Your task to perform on an android device: Search for cool wooden wall art on Etsy. Image 0: 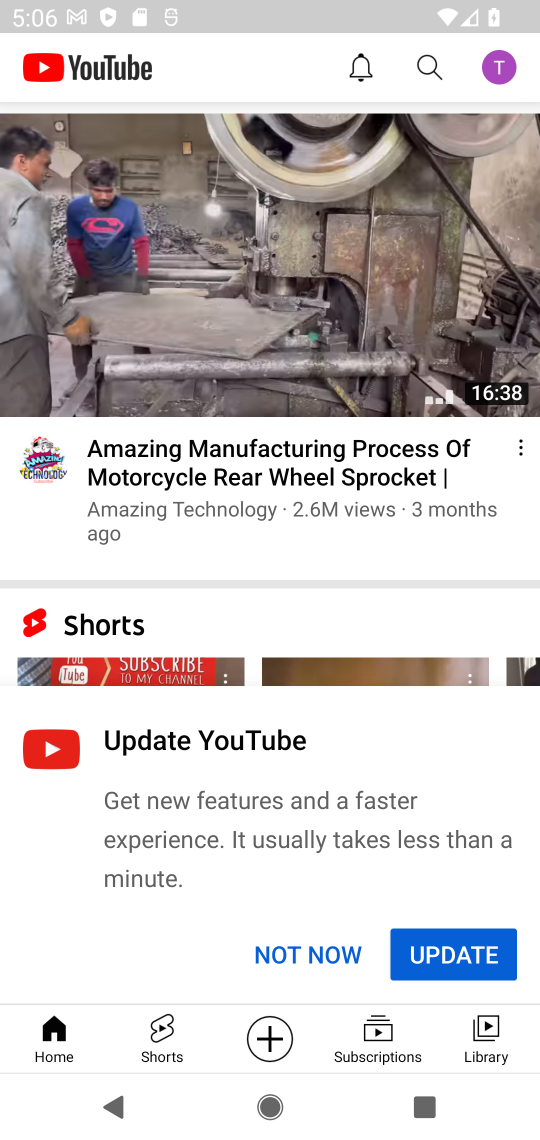
Step 0: press home button
Your task to perform on an android device: Search for cool wooden wall art on Etsy. Image 1: 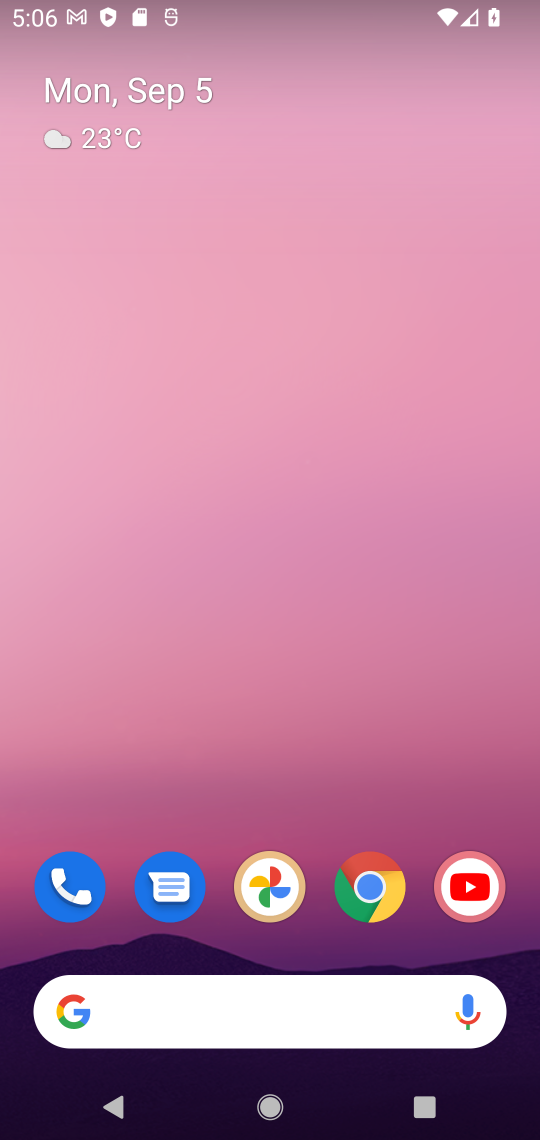
Step 1: drag from (333, 977) to (353, 392)
Your task to perform on an android device: Search for cool wooden wall art on Etsy. Image 2: 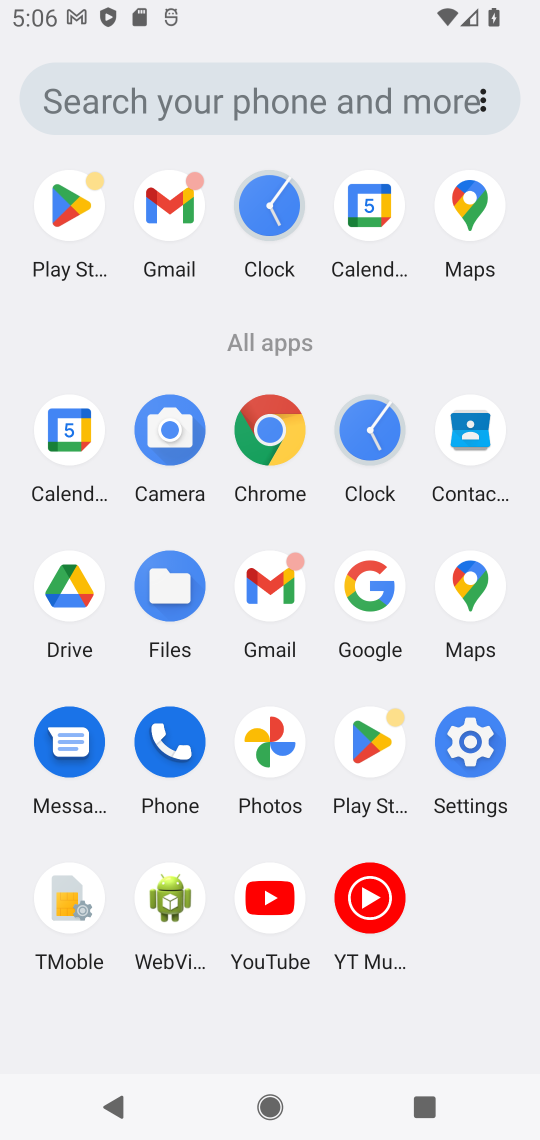
Step 2: click (388, 592)
Your task to perform on an android device: Search for cool wooden wall art on Etsy. Image 3: 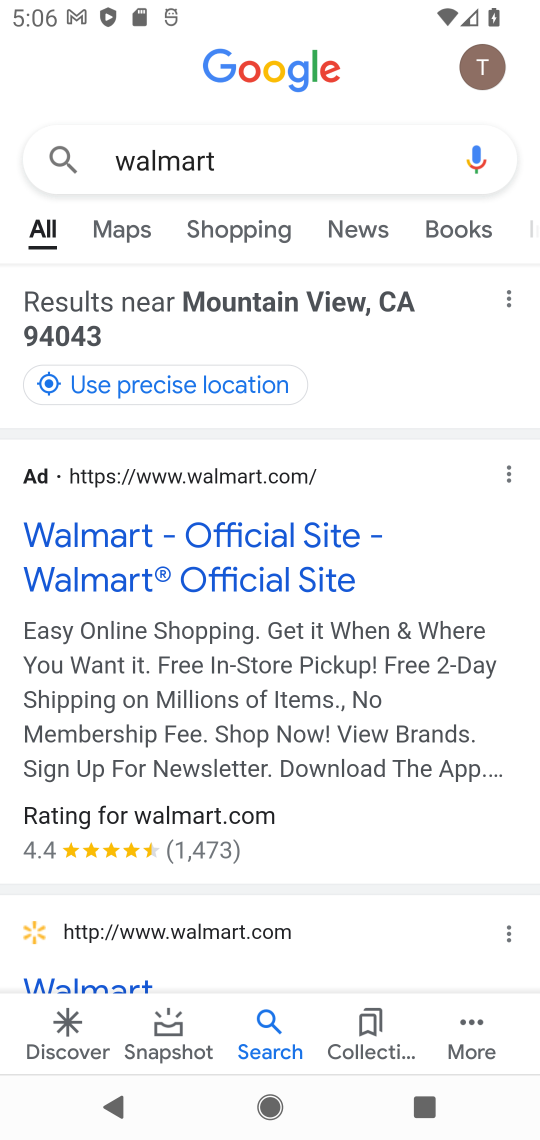
Step 3: click (181, 164)
Your task to perform on an android device: Search for cool wooden wall art on Etsy. Image 4: 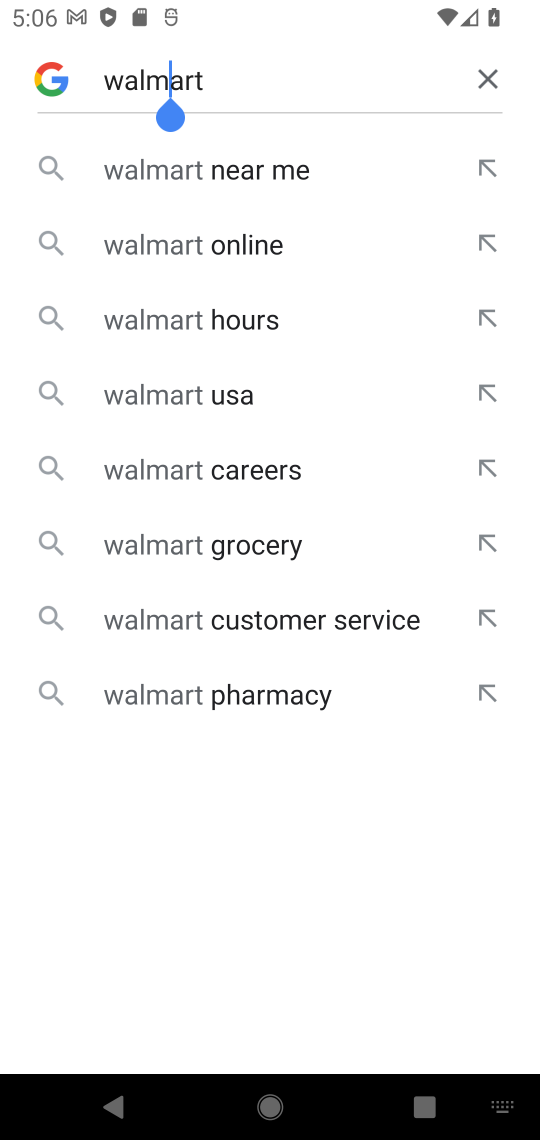
Step 4: click (487, 87)
Your task to perform on an android device: Search for cool wooden wall art on Etsy. Image 5: 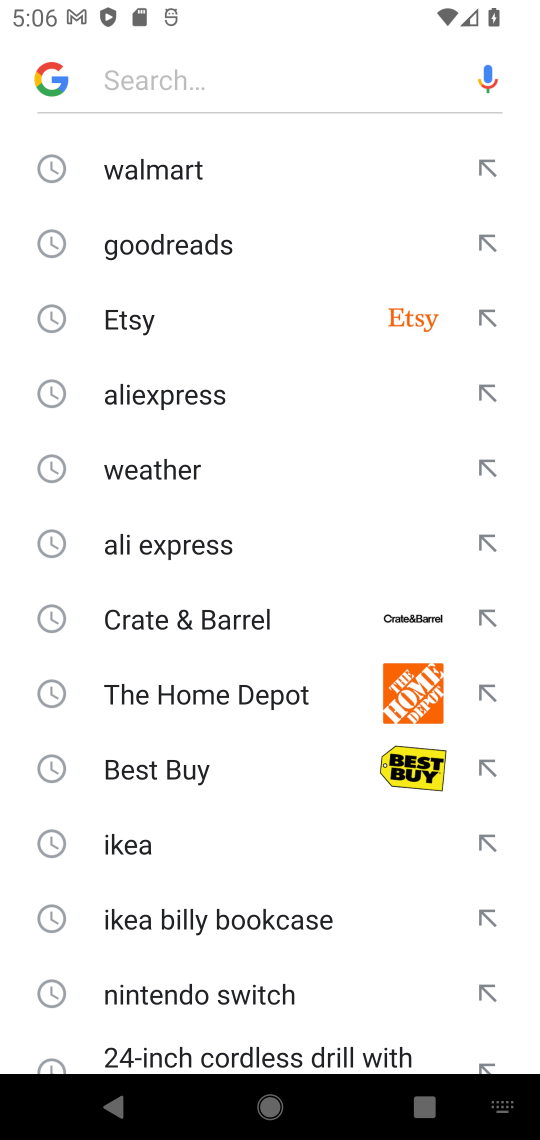
Step 5: click (115, 321)
Your task to perform on an android device: Search for cool wooden wall art on Etsy. Image 6: 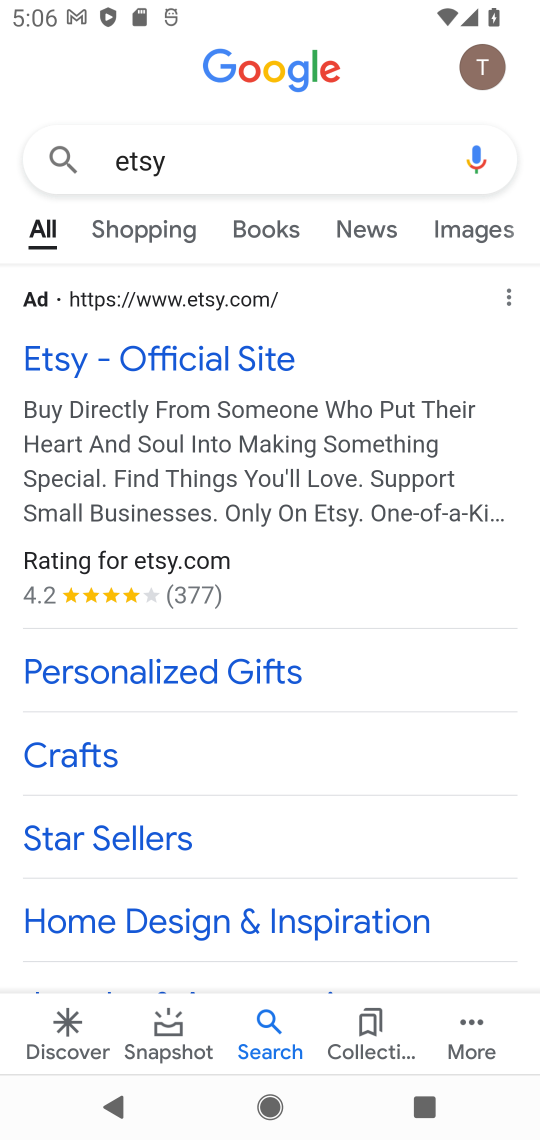
Step 6: click (166, 351)
Your task to perform on an android device: Search for cool wooden wall art on Etsy. Image 7: 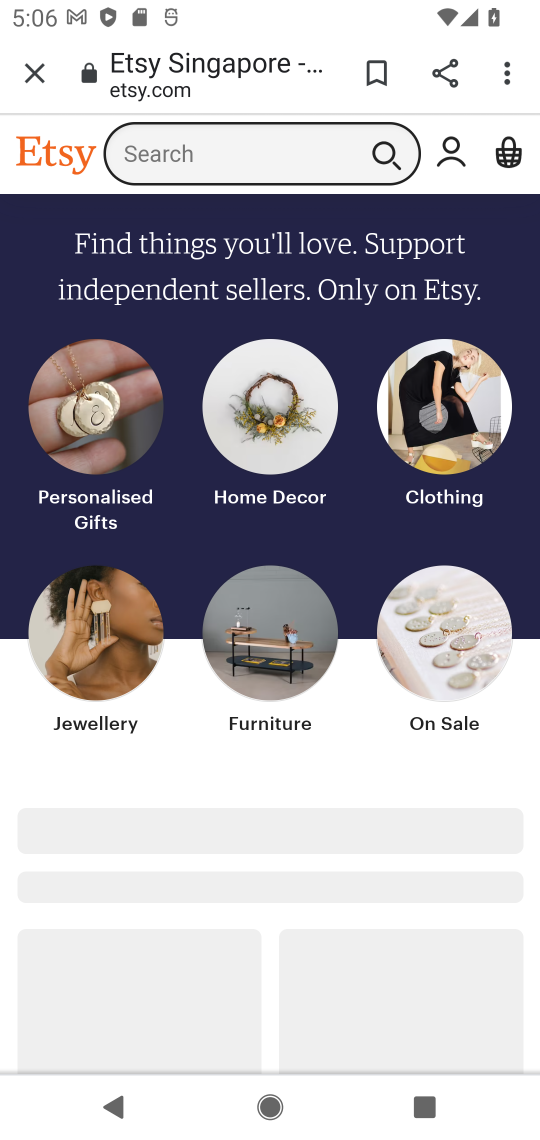
Step 7: click (386, 149)
Your task to perform on an android device: Search for cool wooden wall art on Etsy. Image 8: 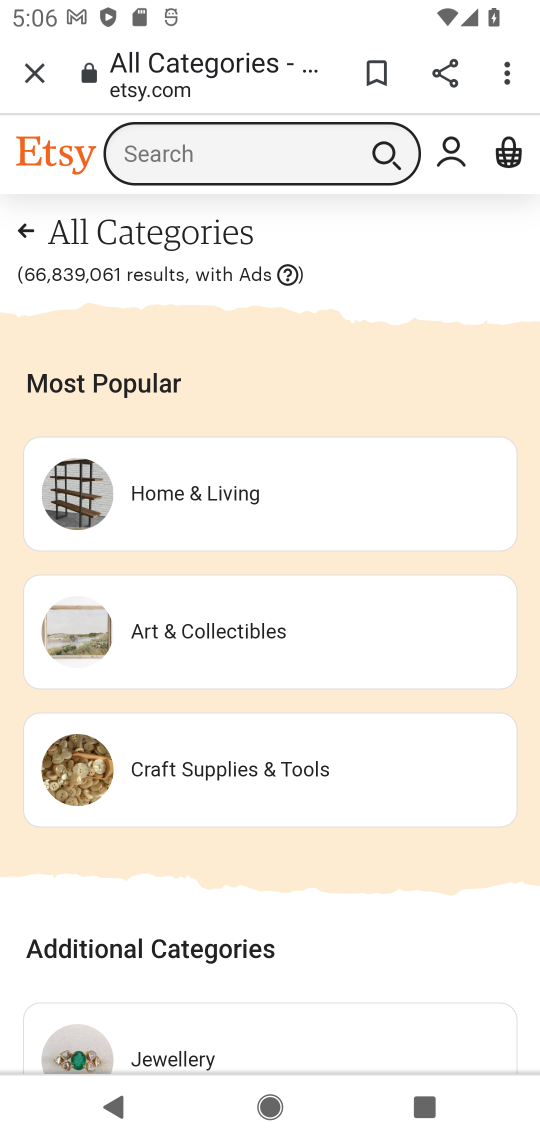
Step 8: click (181, 163)
Your task to perform on an android device: Search for cool wooden wall art on Etsy. Image 9: 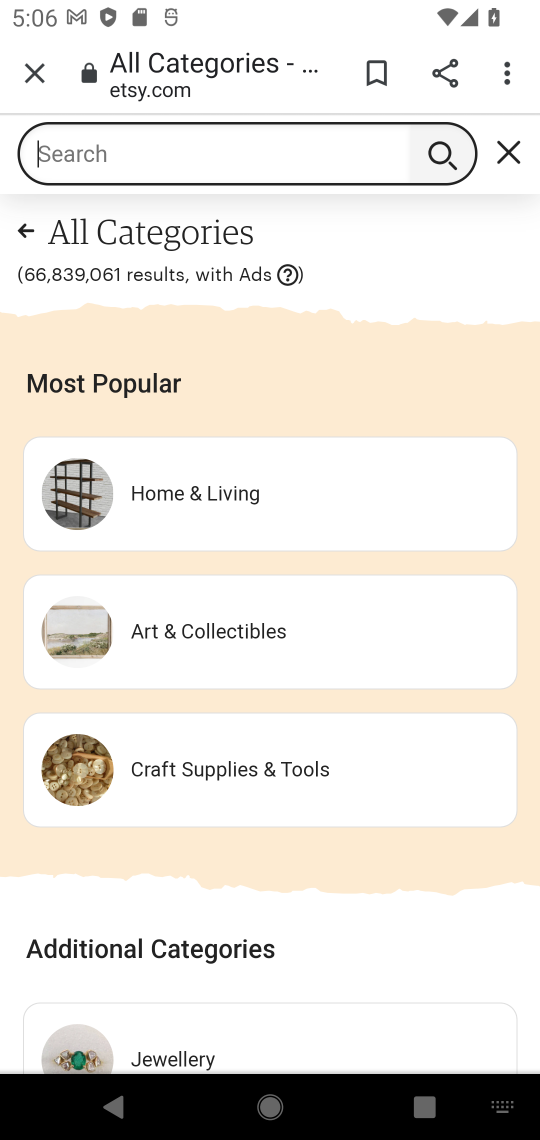
Step 9: click (222, 160)
Your task to perform on an android device: Search for cool wooden wall art on Etsy. Image 10: 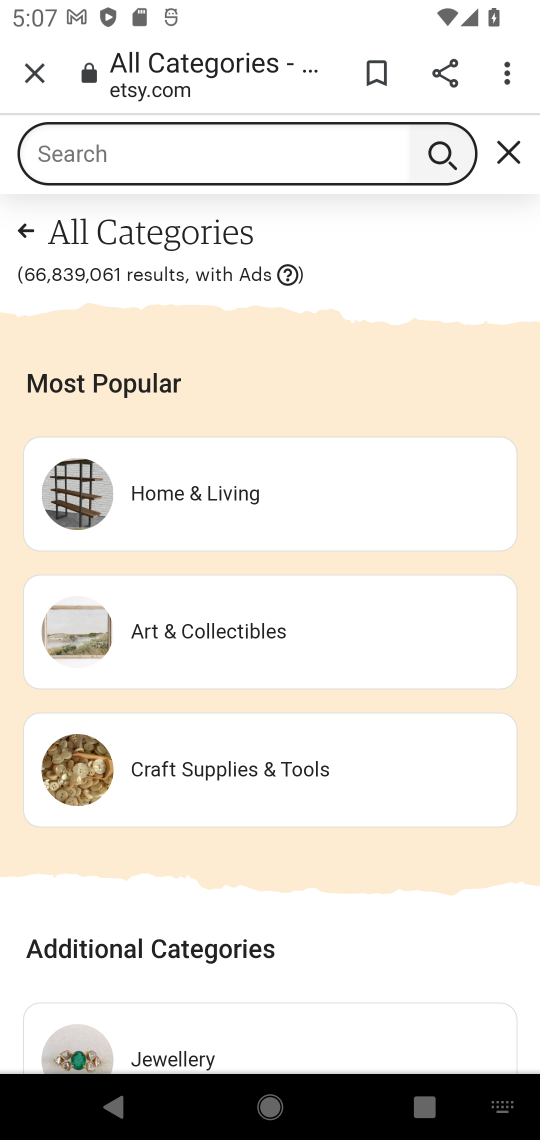
Step 10: type "cool wooden wall"
Your task to perform on an android device: Search for cool wooden wall art on Etsy. Image 11: 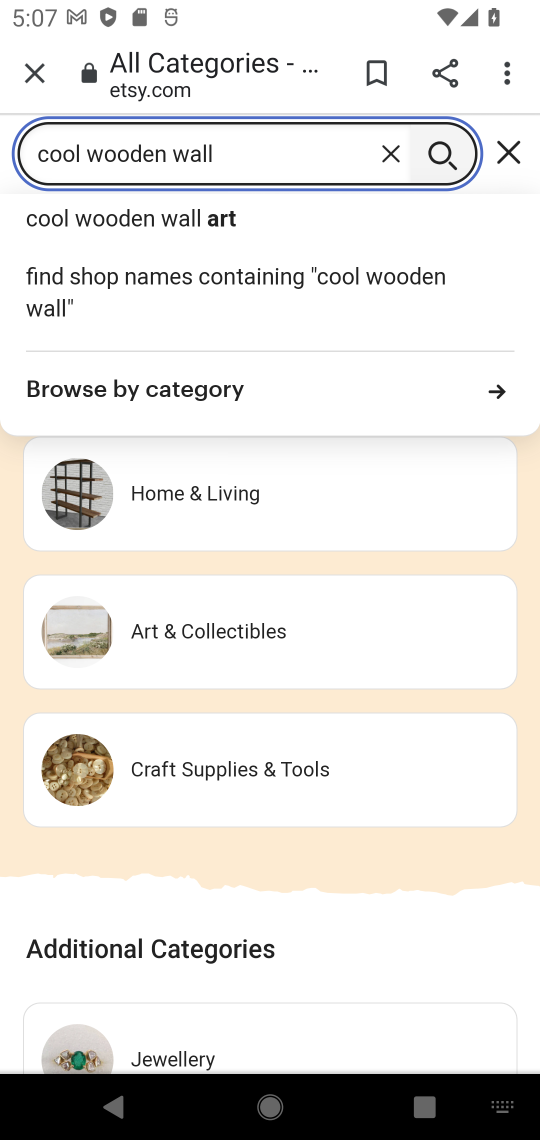
Step 11: click (115, 225)
Your task to perform on an android device: Search for cool wooden wall art on Etsy. Image 12: 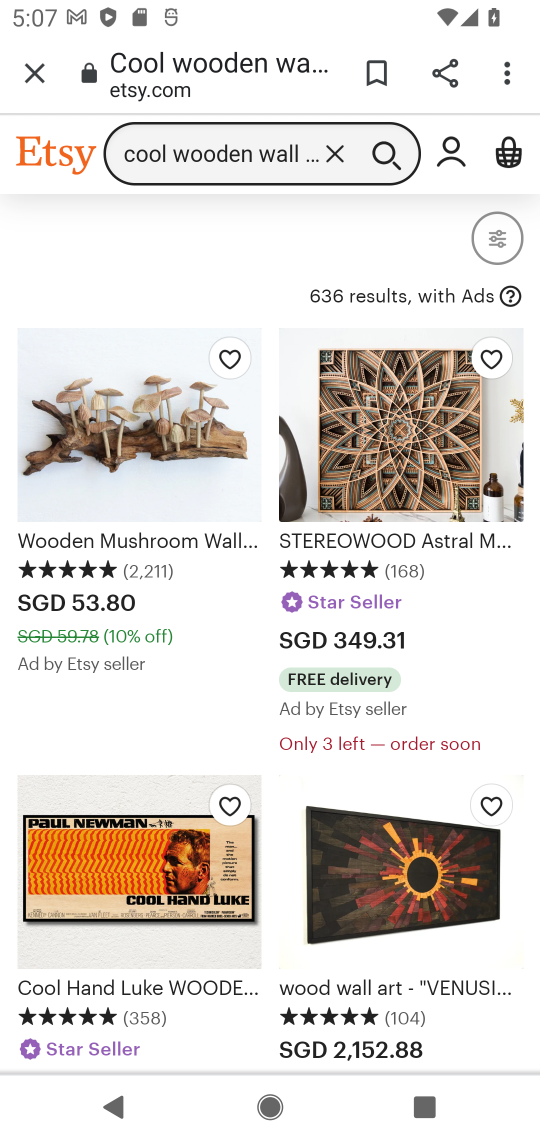
Step 12: task complete